Your task to perform on an android device: turn pop-ups on in chrome Image 0: 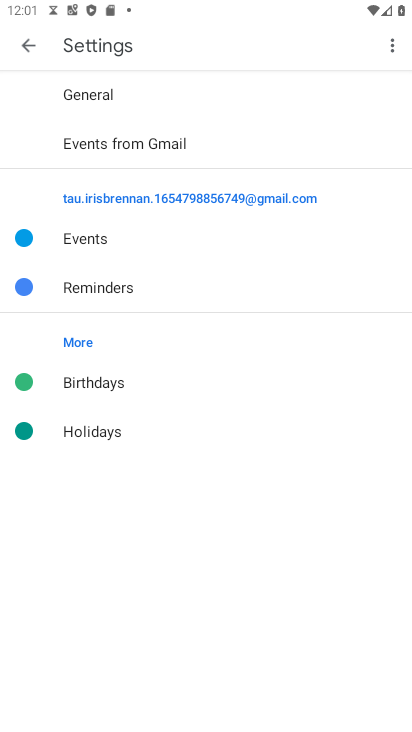
Step 0: drag from (238, 701) to (172, 160)
Your task to perform on an android device: turn pop-ups on in chrome Image 1: 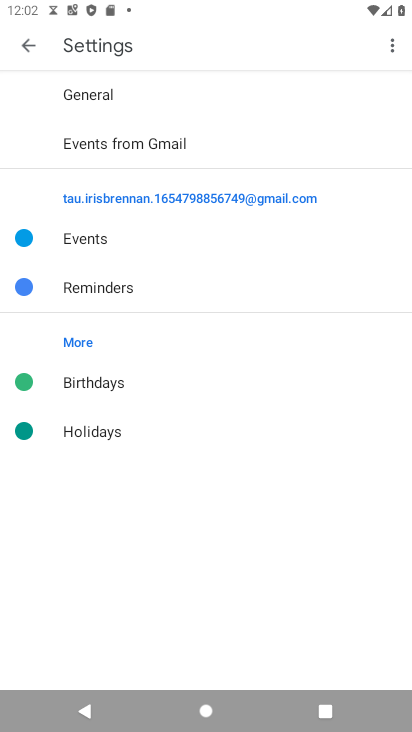
Step 1: click (31, 53)
Your task to perform on an android device: turn pop-ups on in chrome Image 2: 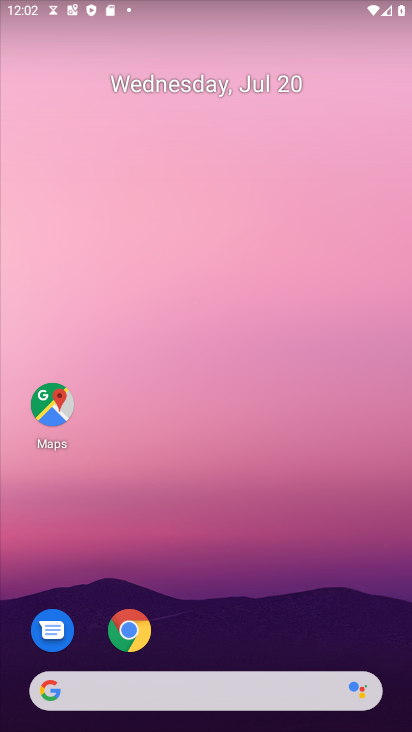
Step 2: drag from (214, 565) to (214, 142)
Your task to perform on an android device: turn pop-ups on in chrome Image 3: 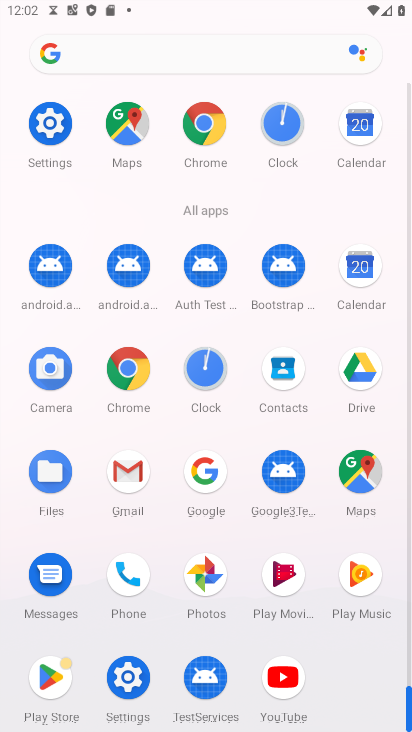
Step 3: click (209, 128)
Your task to perform on an android device: turn pop-ups on in chrome Image 4: 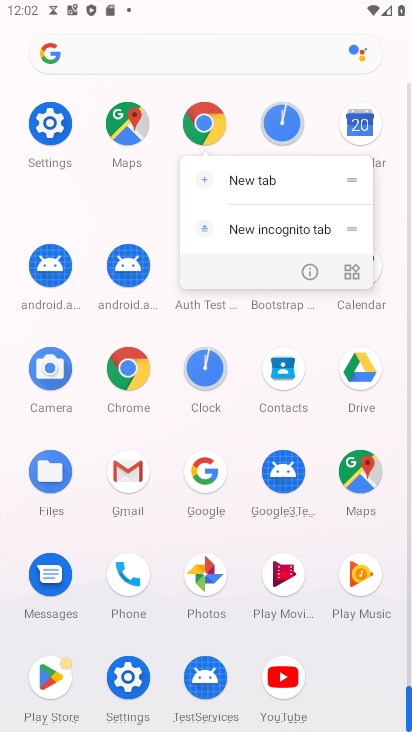
Step 4: click (199, 119)
Your task to perform on an android device: turn pop-ups on in chrome Image 5: 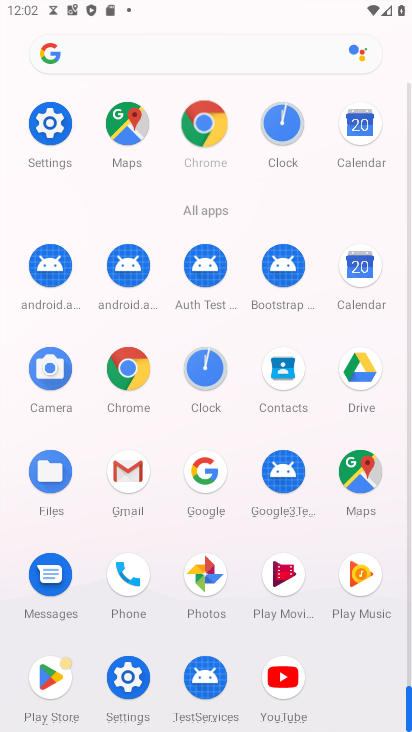
Step 5: click (199, 118)
Your task to perform on an android device: turn pop-ups on in chrome Image 6: 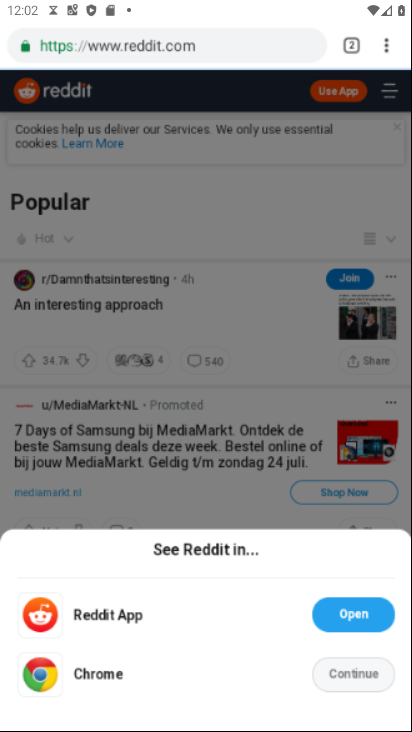
Step 6: click (199, 118)
Your task to perform on an android device: turn pop-ups on in chrome Image 7: 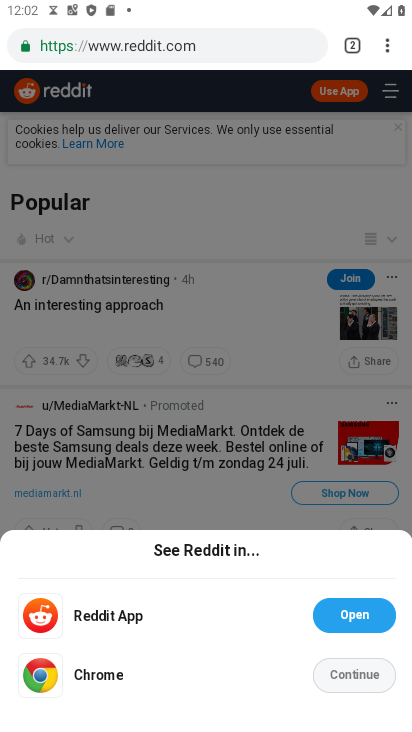
Step 7: drag from (384, 46) to (199, 544)
Your task to perform on an android device: turn pop-ups on in chrome Image 8: 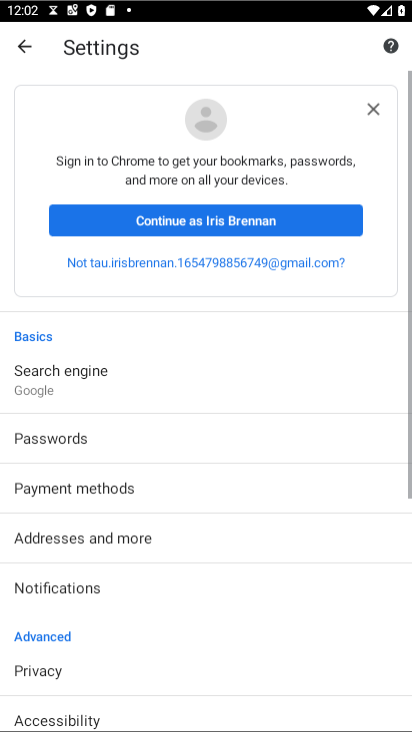
Step 8: click (199, 544)
Your task to perform on an android device: turn pop-ups on in chrome Image 9: 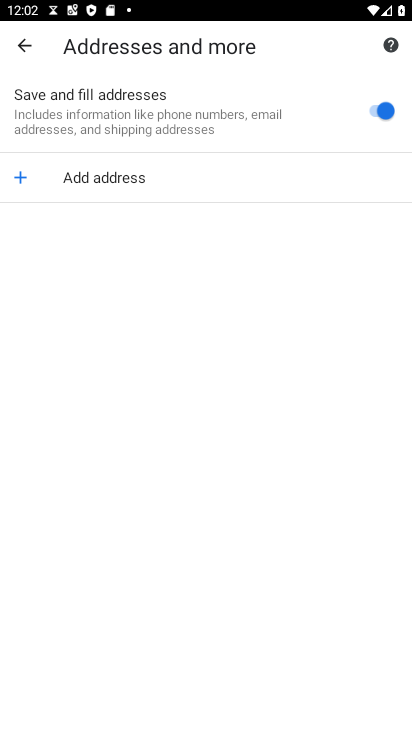
Step 9: drag from (114, 575) to (114, 238)
Your task to perform on an android device: turn pop-ups on in chrome Image 10: 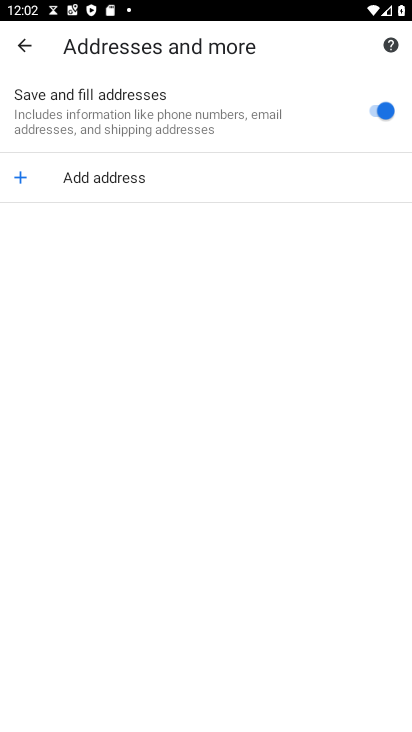
Step 10: drag from (115, 474) to (164, 122)
Your task to perform on an android device: turn pop-ups on in chrome Image 11: 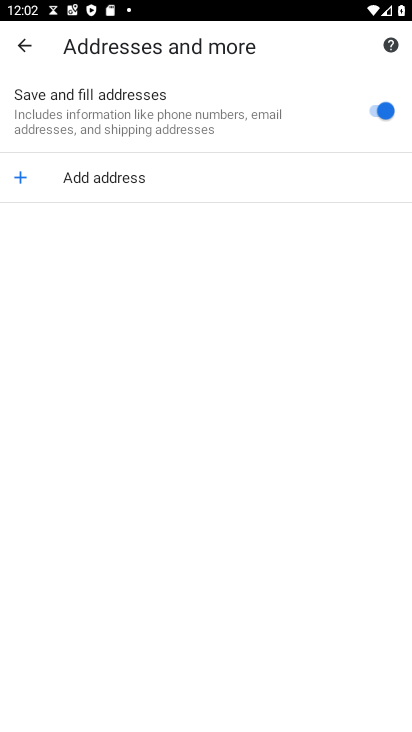
Step 11: click (28, 54)
Your task to perform on an android device: turn pop-ups on in chrome Image 12: 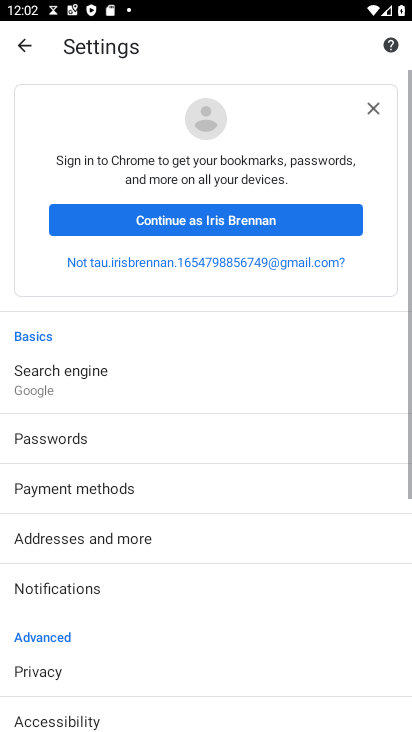
Step 12: click (25, 47)
Your task to perform on an android device: turn pop-ups on in chrome Image 13: 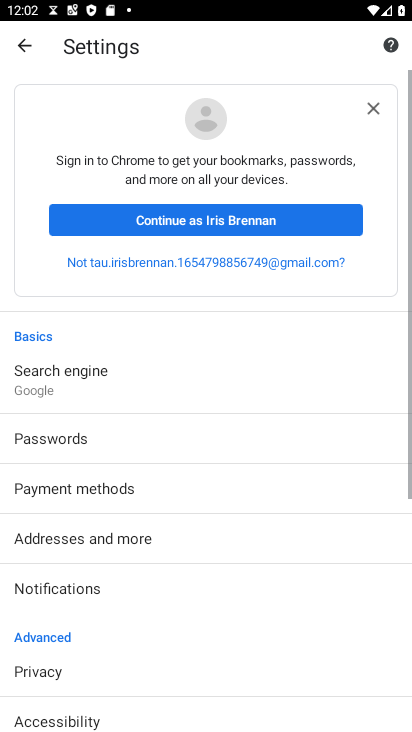
Step 13: drag from (157, 574) to (187, 166)
Your task to perform on an android device: turn pop-ups on in chrome Image 14: 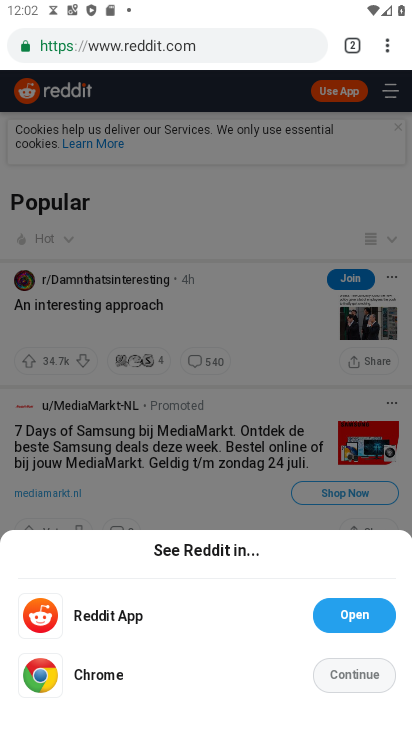
Step 14: drag from (154, 469) to (171, 187)
Your task to perform on an android device: turn pop-ups on in chrome Image 15: 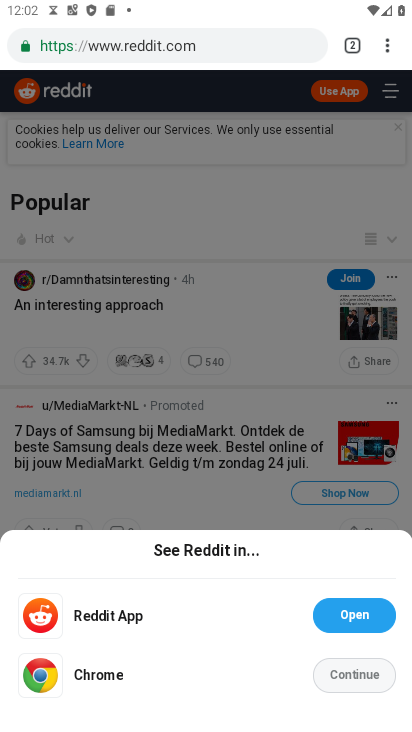
Step 15: drag from (385, 50) to (219, 547)
Your task to perform on an android device: turn pop-ups on in chrome Image 16: 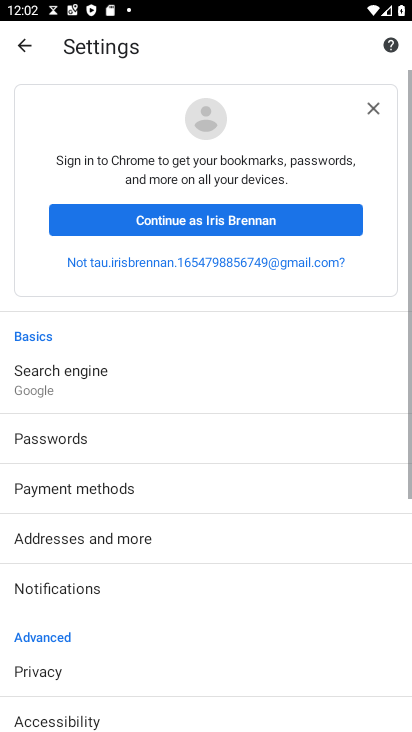
Step 16: drag from (84, 589) to (85, 346)
Your task to perform on an android device: turn pop-ups on in chrome Image 17: 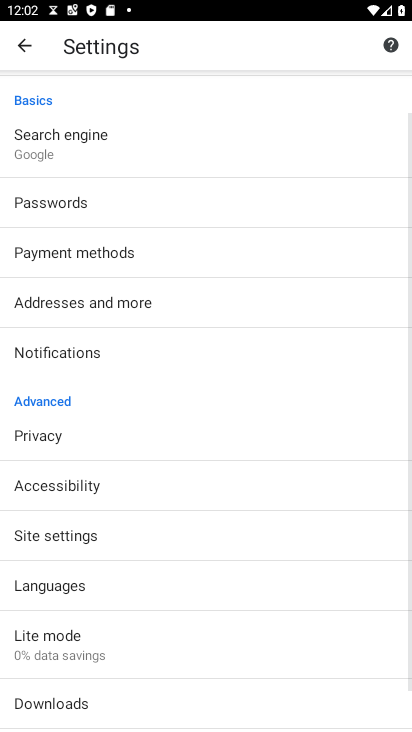
Step 17: drag from (98, 451) to (129, 269)
Your task to perform on an android device: turn pop-ups on in chrome Image 18: 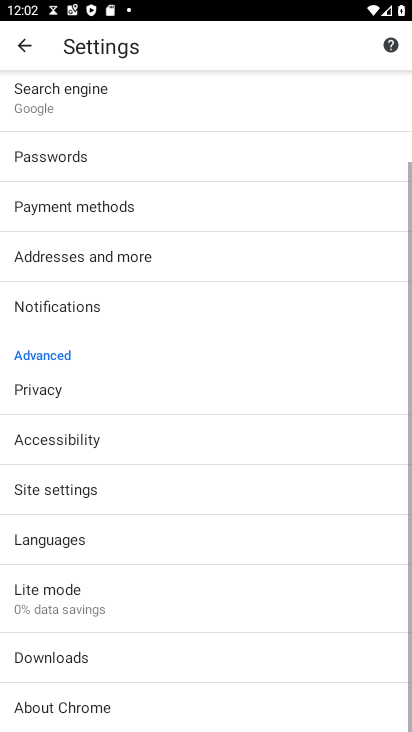
Step 18: drag from (161, 424) to (161, 260)
Your task to perform on an android device: turn pop-ups on in chrome Image 19: 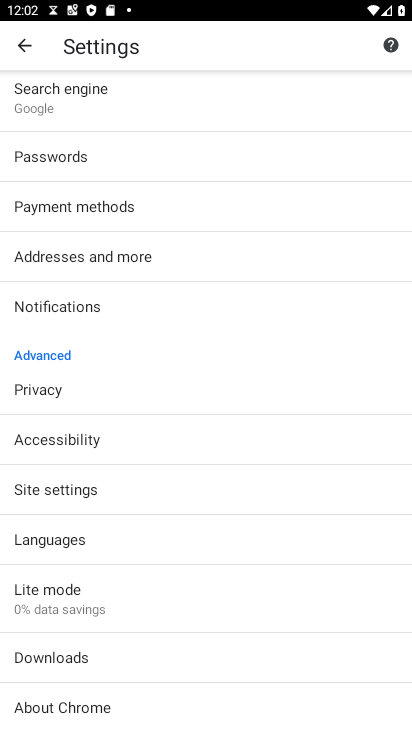
Step 19: click (44, 483)
Your task to perform on an android device: turn pop-ups on in chrome Image 20: 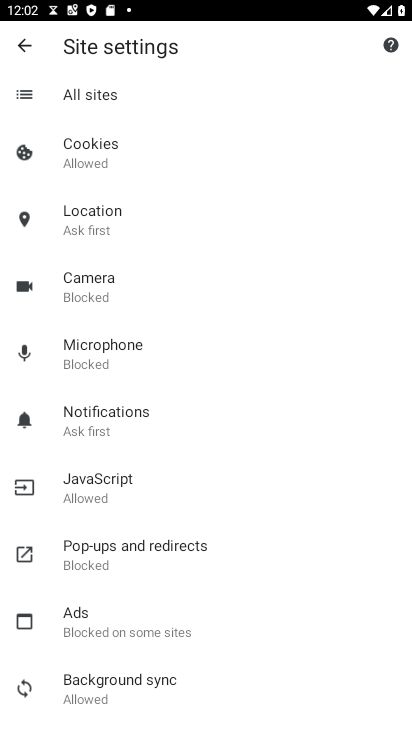
Step 20: click (94, 549)
Your task to perform on an android device: turn pop-ups on in chrome Image 21: 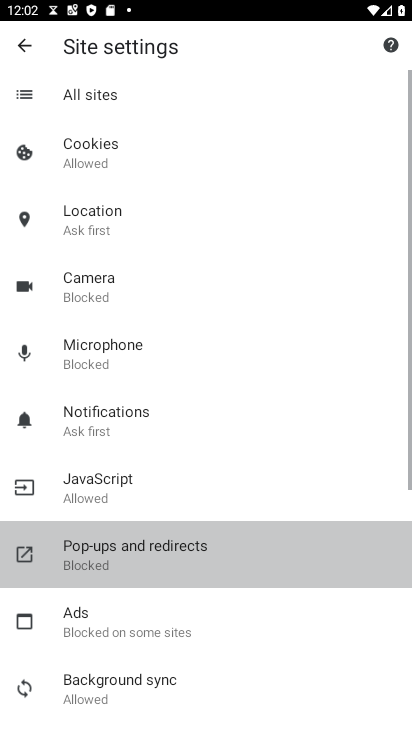
Step 21: click (95, 552)
Your task to perform on an android device: turn pop-ups on in chrome Image 22: 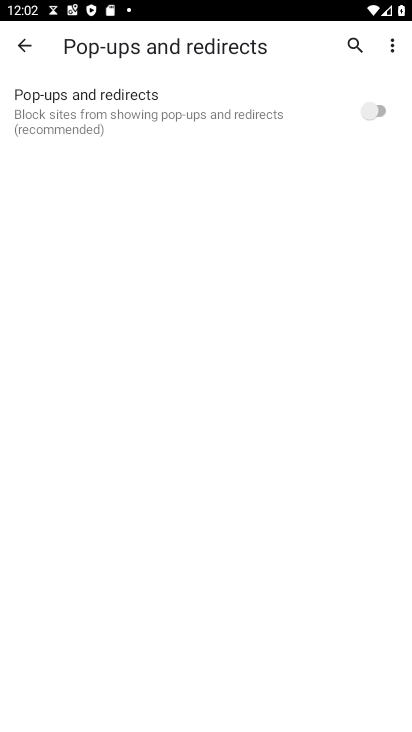
Step 22: click (369, 116)
Your task to perform on an android device: turn pop-ups on in chrome Image 23: 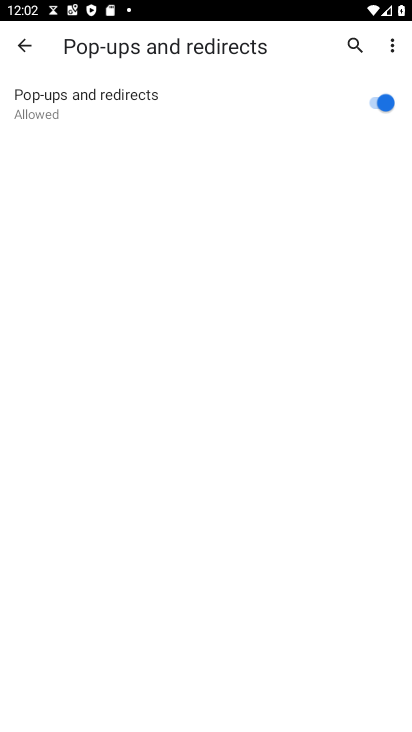
Step 23: task complete